Your task to perform on an android device: add a label to a message in the gmail app Image 0: 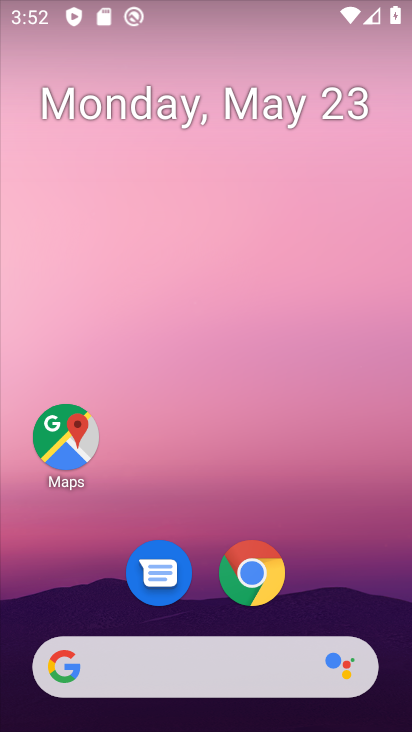
Step 0: drag from (161, 727) to (128, 42)
Your task to perform on an android device: add a label to a message in the gmail app Image 1: 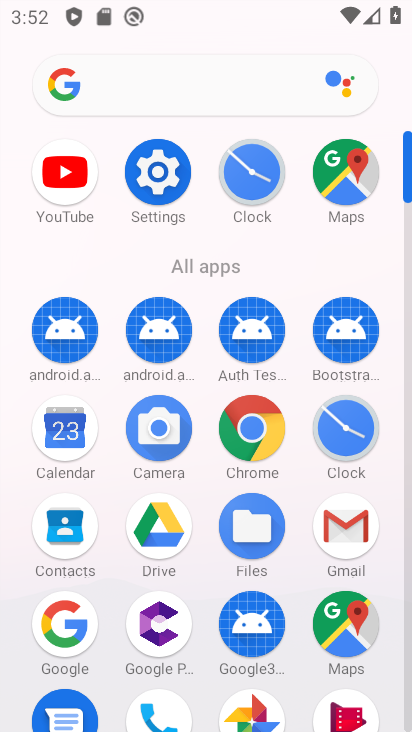
Step 1: click (345, 525)
Your task to perform on an android device: add a label to a message in the gmail app Image 2: 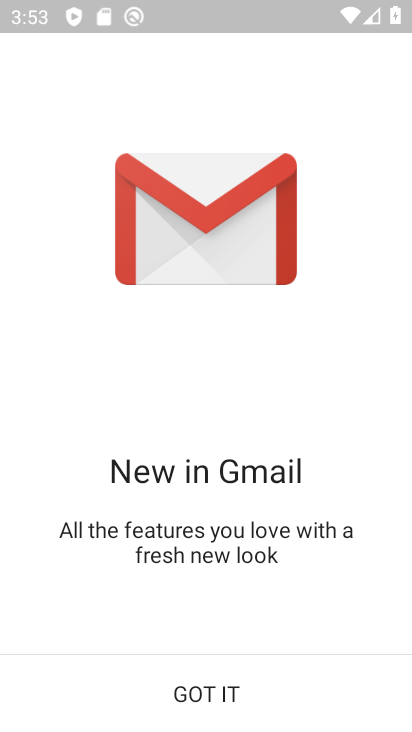
Step 2: click (195, 702)
Your task to perform on an android device: add a label to a message in the gmail app Image 3: 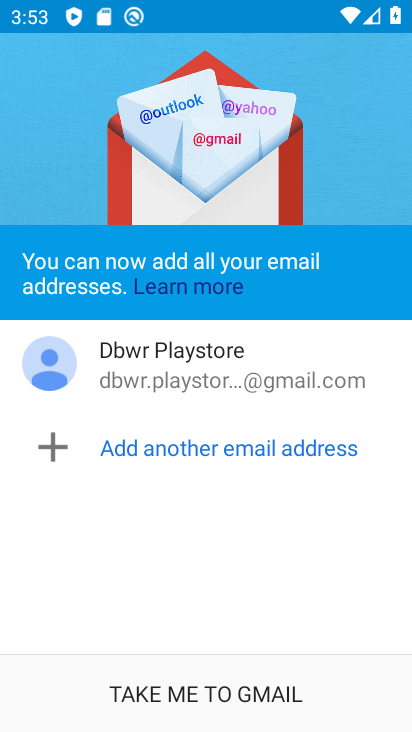
Step 3: click (196, 692)
Your task to perform on an android device: add a label to a message in the gmail app Image 4: 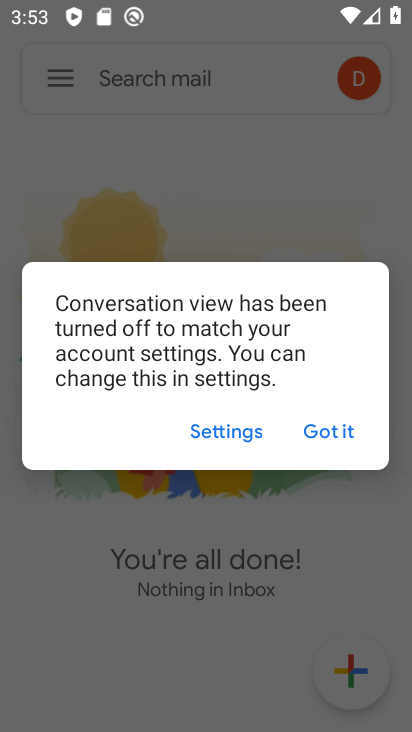
Step 4: click (330, 431)
Your task to perform on an android device: add a label to a message in the gmail app Image 5: 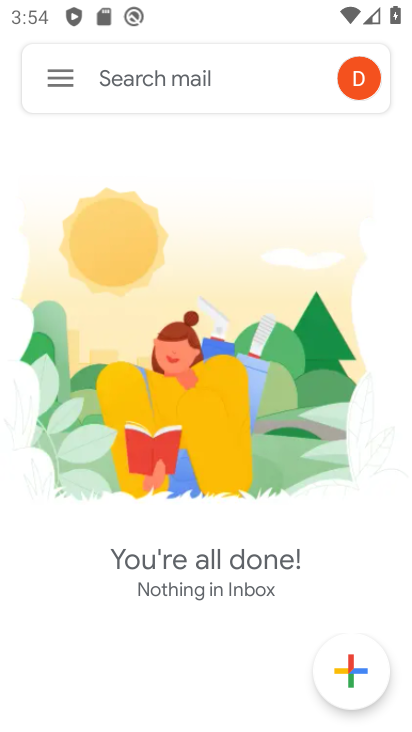
Step 5: task complete